Your task to perform on an android device: check google app version Image 0: 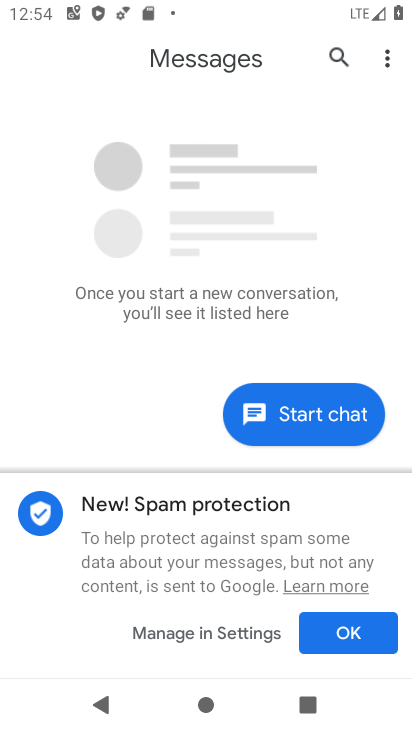
Step 0: press home button
Your task to perform on an android device: check google app version Image 1: 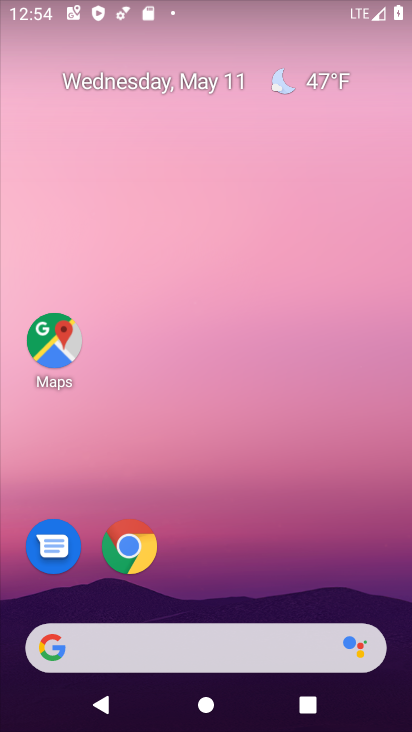
Step 1: drag from (204, 624) to (299, 72)
Your task to perform on an android device: check google app version Image 2: 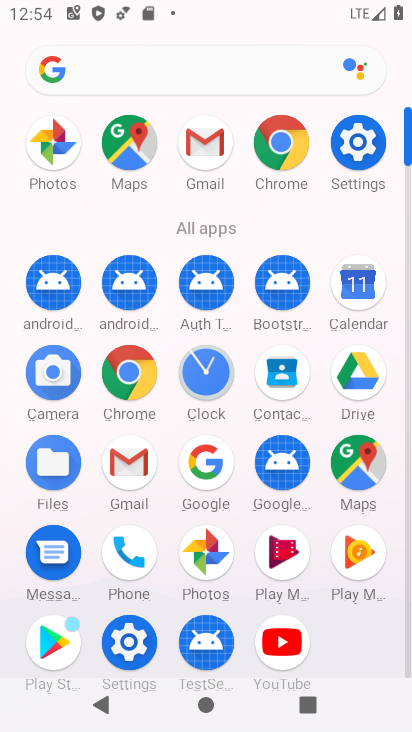
Step 2: click (131, 651)
Your task to perform on an android device: check google app version Image 3: 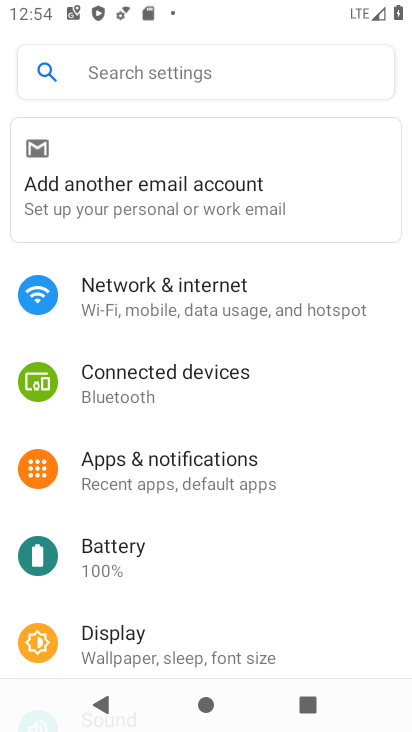
Step 3: click (233, 478)
Your task to perform on an android device: check google app version Image 4: 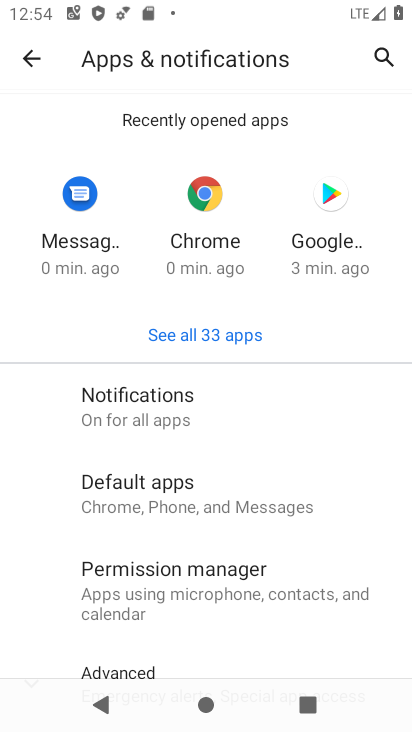
Step 4: click (235, 332)
Your task to perform on an android device: check google app version Image 5: 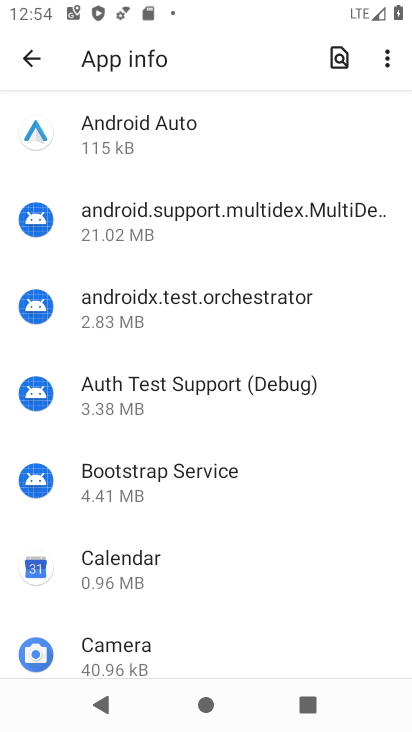
Step 5: drag from (163, 605) to (317, 222)
Your task to perform on an android device: check google app version Image 6: 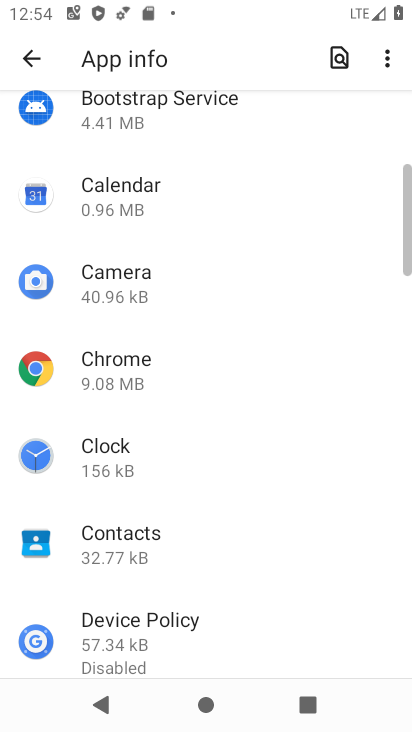
Step 6: drag from (196, 568) to (337, 174)
Your task to perform on an android device: check google app version Image 7: 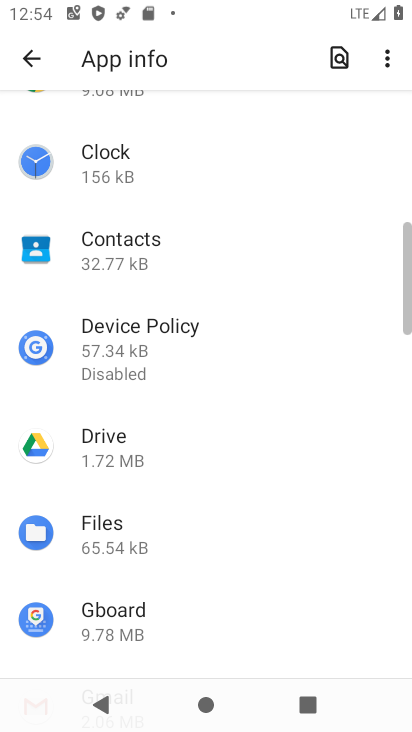
Step 7: drag from (167, 567) to (289, 231)
Your task to perform on an android device: check google app version Image 8: 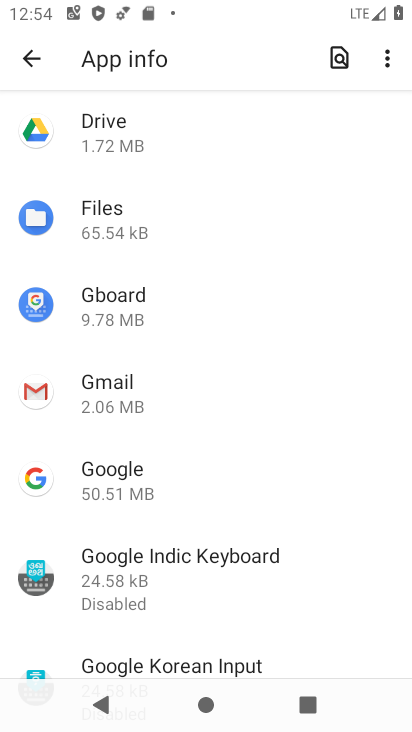
Step 8: click (131, 487)
Your task to perform on an android device: check google app version Image 9: 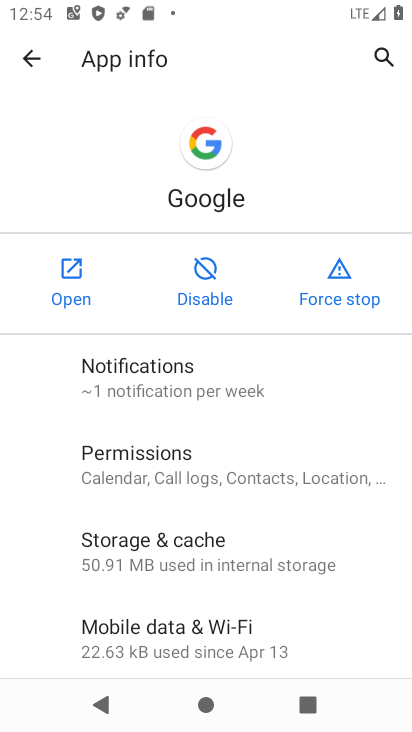
Step 9: drag from (176, 596) to (337, 293)
Your task to perform on an android device: check google app version Image 10: 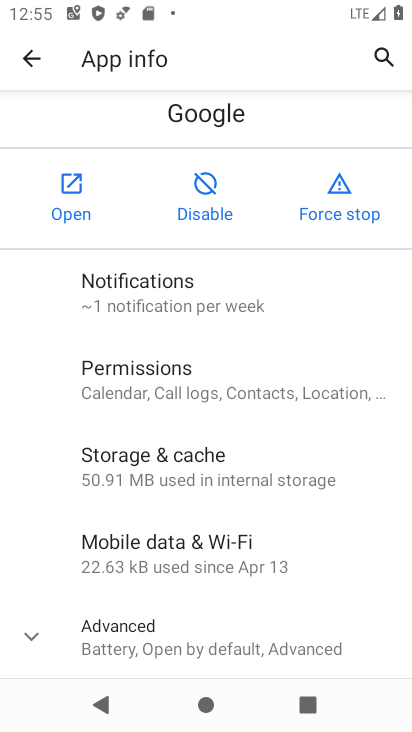
Step 10: click (209, 651)
Your task to perform on an android device: check google app version Image 11: 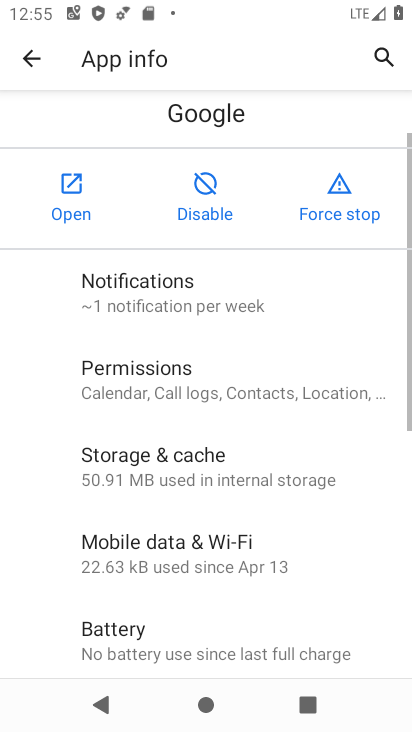
Step 11: task complete